Your task to perform on an android device: turn pop-ups on in chrome Image 0: 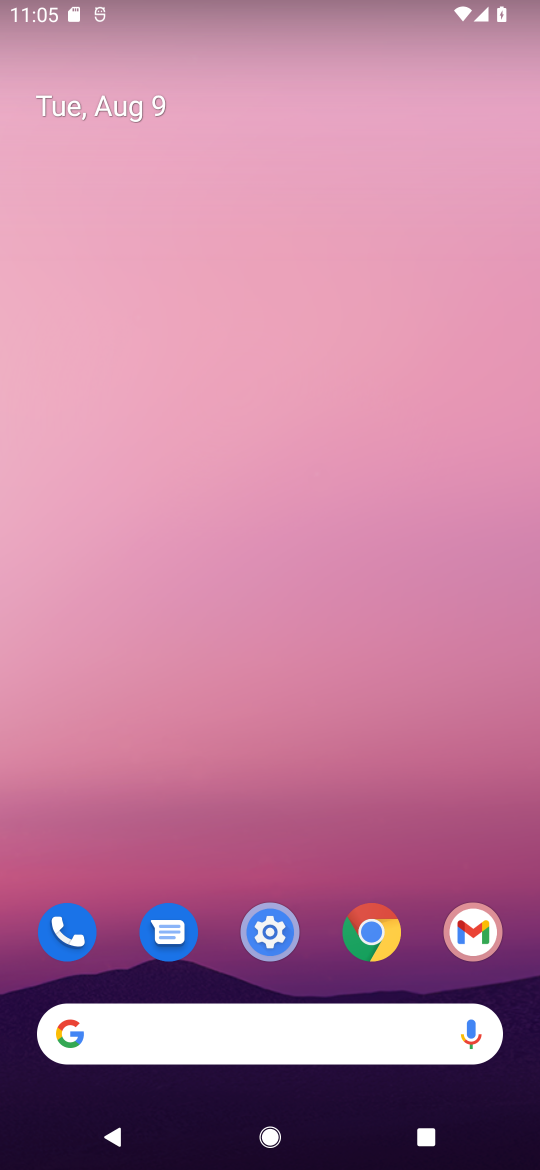
Step 0: click (373, 936)
Your task to perform on an android device: turn pop-ups on in chrome Image 1: 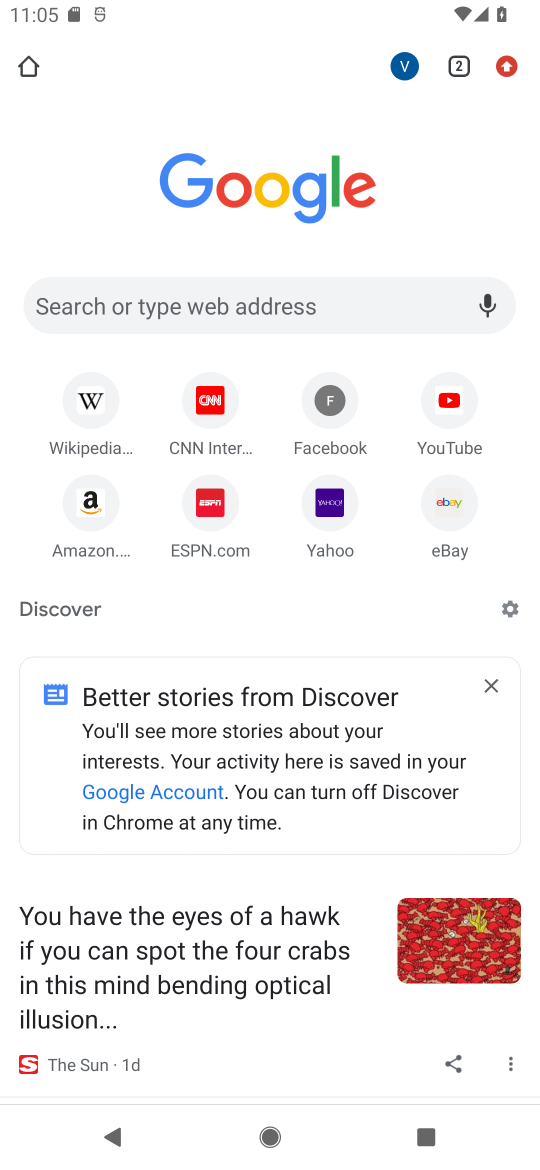
Step 1: click (503, 67)
Your task to perform on an android device: turn pop-ups on in chrome Image 2: 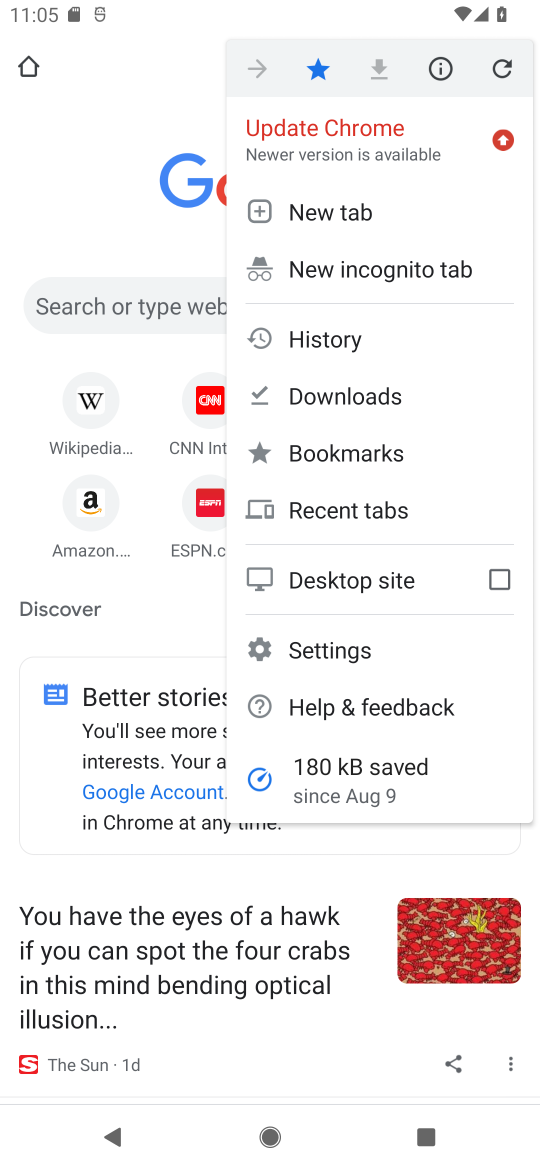
Step 2: click (326, 651)
Your task to perform on an android device: turn pop-ups on in chrome Image 3: 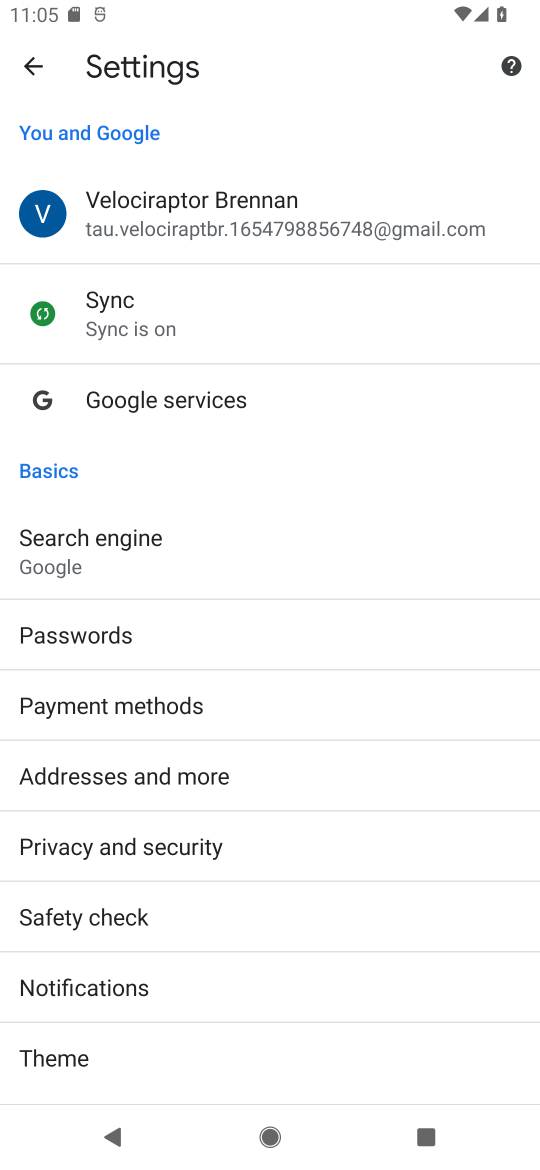
Step 3: drag from (158, 942) to (266, 316)
Your task to perform on an android device: turn pop-ups on in chrome Image 4: 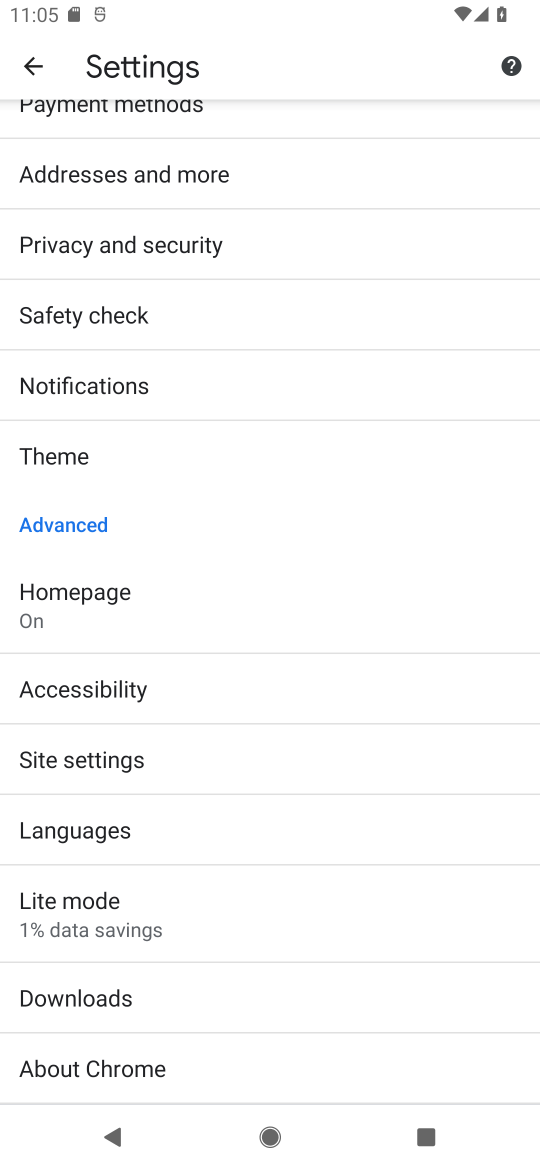
Step 4: click (110, 766)
Your task to perform on an android device: turn pop-ups on in chrome Image 5: 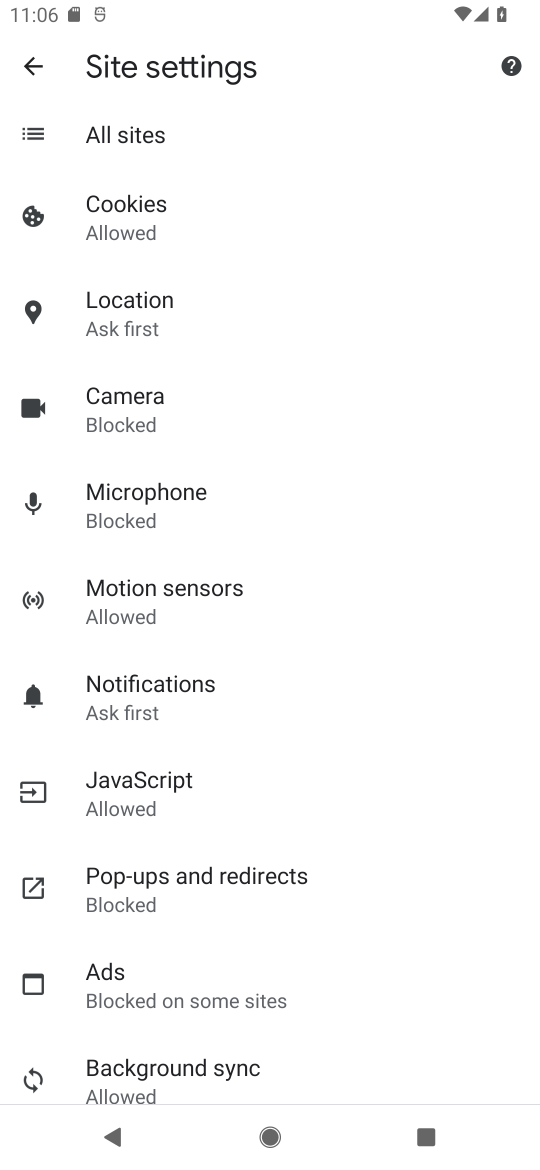
Step 5: click (179, 899)
Your task to perform on an android device: turn pop-ups on in chrome Image 6: 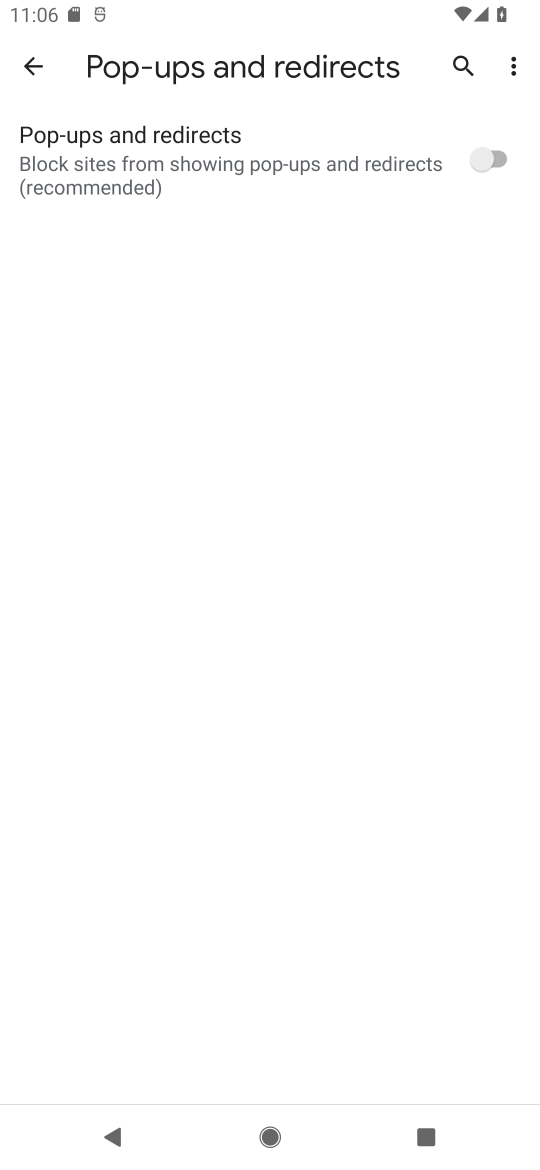
Step 6: click (463, 170)
Your task to perform on an android device: turn pop-ups on in chrome Image 7: 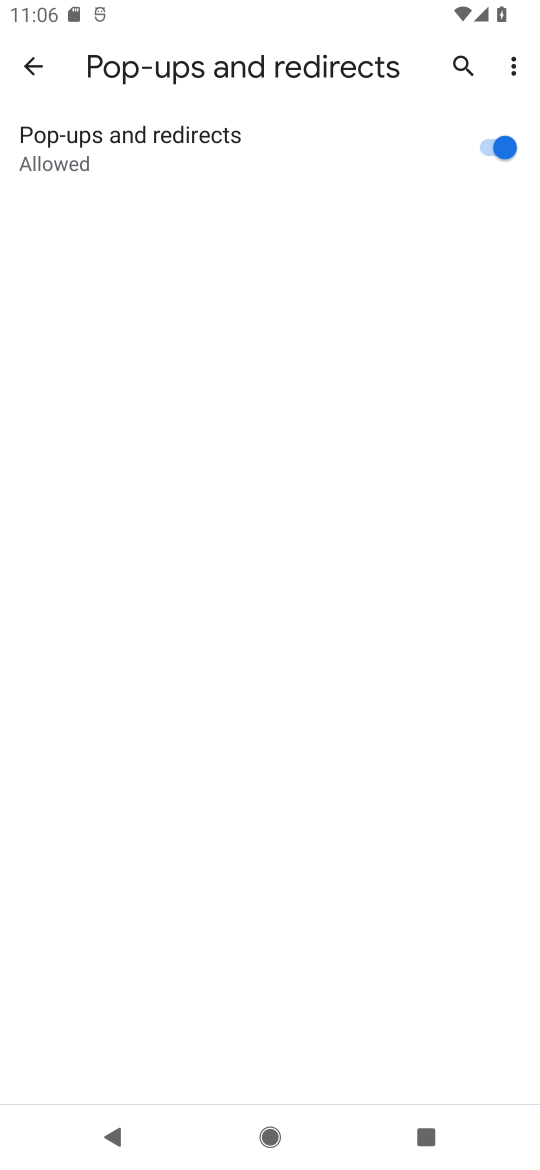
Step 7: task complete